Your task to perform on an android device: toggle airplane mode Image 0: 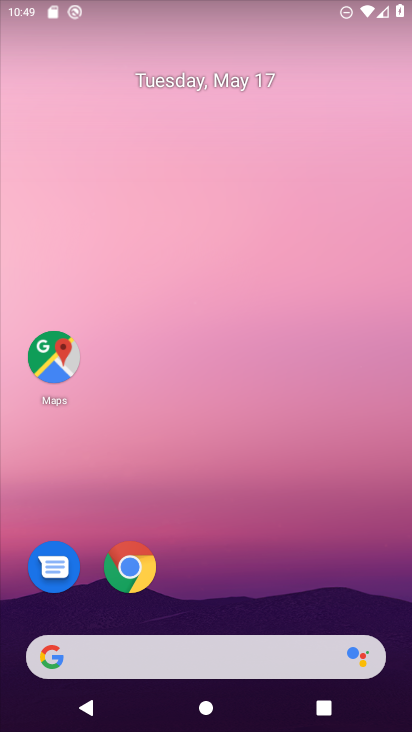
Step 0: drag from (245, 600) to (249, 141)
Your task to perform on an android device: toggle airplane mode Image 1: 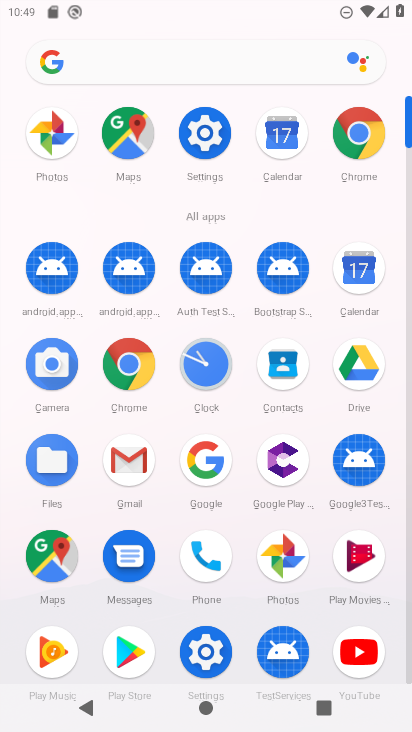
Step 1: click (201, 133)
Your task to perform on an android device: toggle airplane mode Image 2: 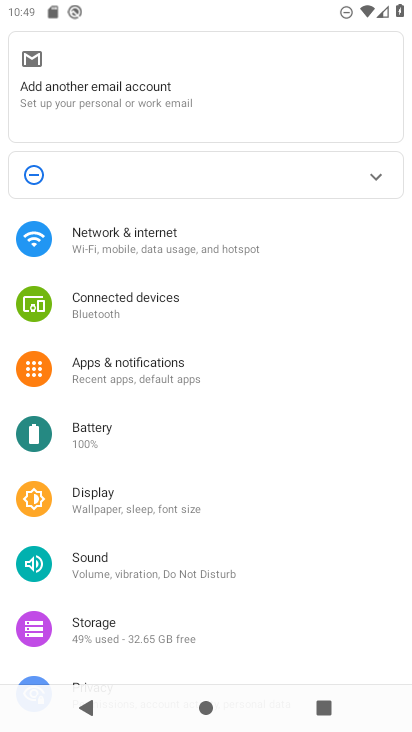
Step 2: click (182, 235)
Your task to perform on an android device: toggle airplane mode Image 3: 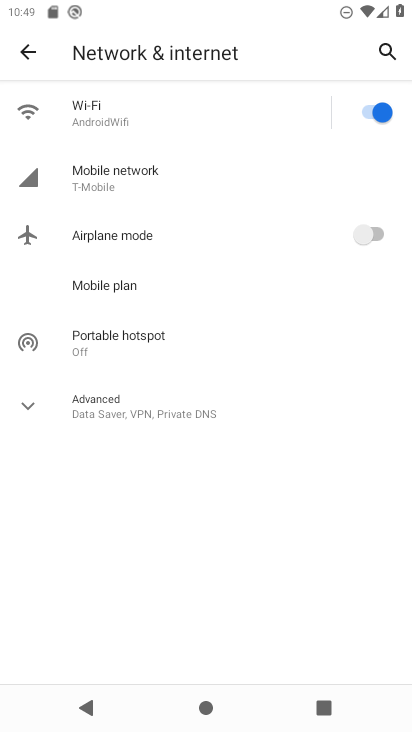
Step 3: click (368, 232)
Your task to perform on an android device: toggle airplane mode Image 4: 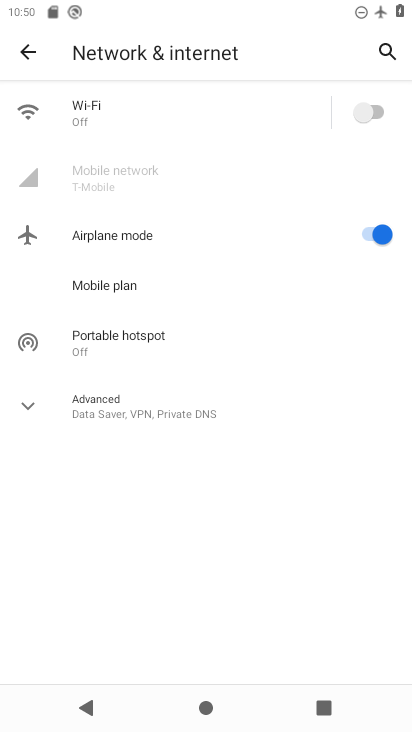
Step 4: task complete